Your task to perform on an android device: turn off improve location accuracy Image 0: 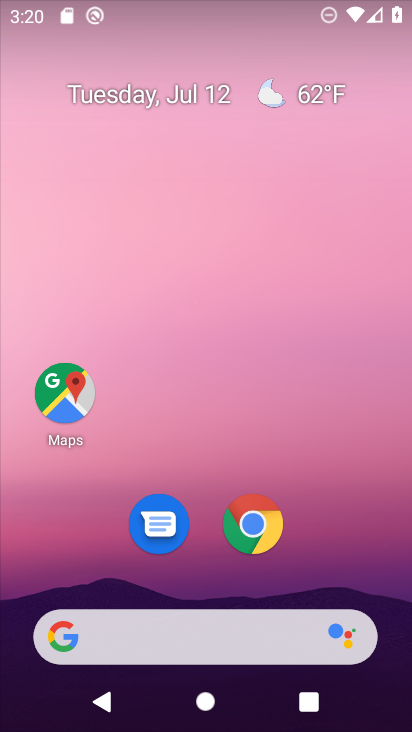
Step 0: drag from (350, 561) to (327, 32)
Your task to perform on an android device: turn off improve location accuracy Image 1: 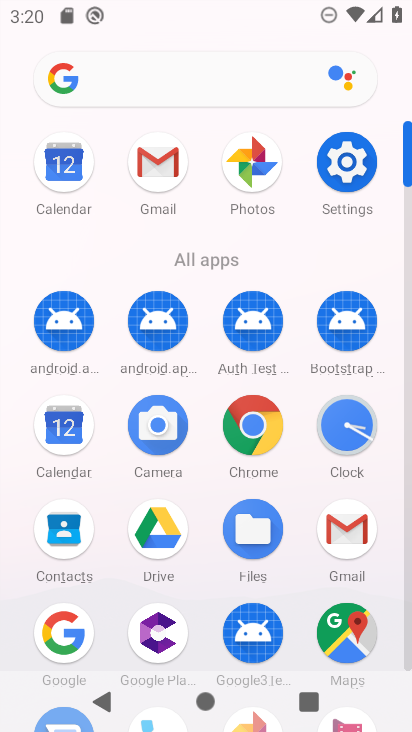
Step 1: click (355, 177)
Your task to perform on an android device: turn off improve location accuracy Image 2: 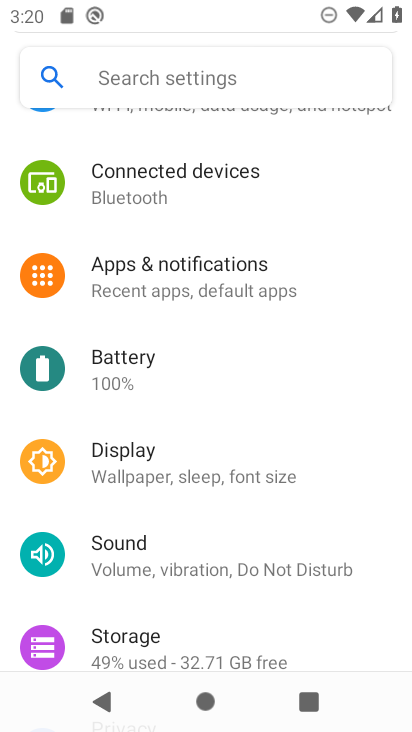
Step 2: drag from (260, 417) to (258, 77)
Your task to perform on an android device: turn off improve location accuracy Image 3: 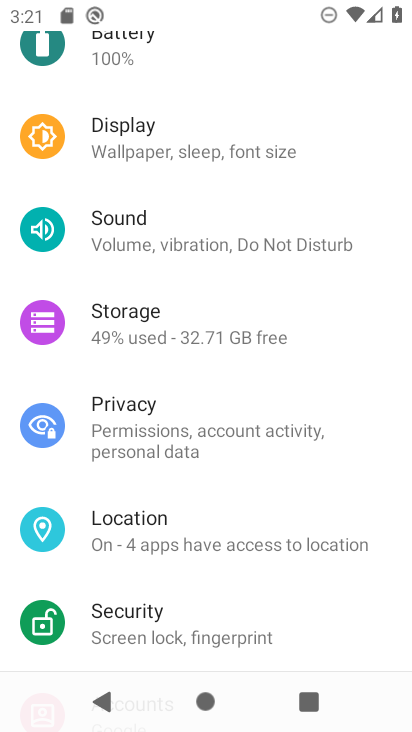
Step 3: click (158, 544)
Your task to perform on an android device: turn off improve location accuracy Image 4: 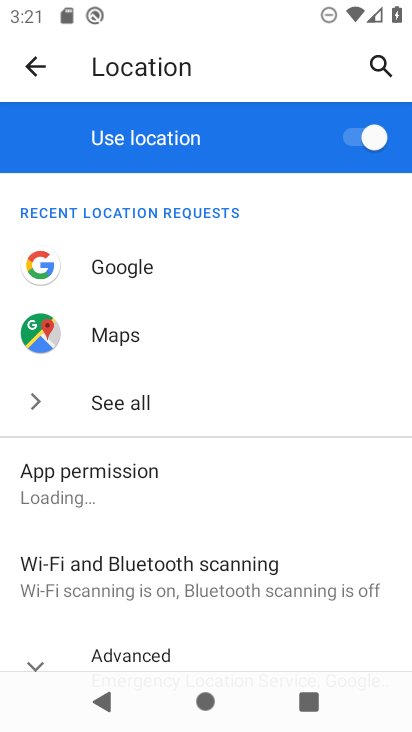
Step 4: drag from (183, 484) to (211, 111)
Your task to perform on an android device: turn off improve location accuracy Image 5: 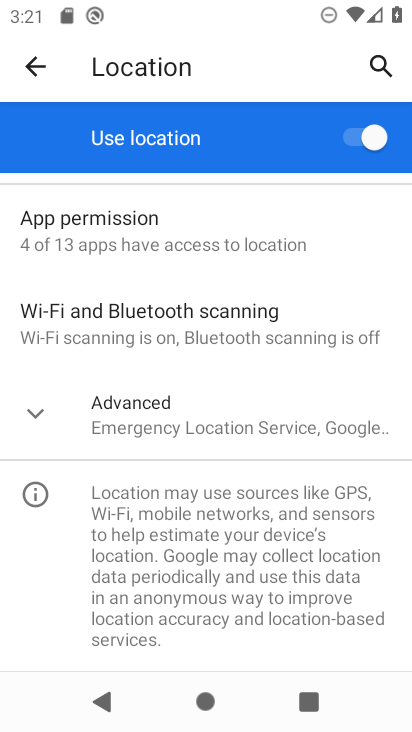
Step 5: click (35, 406)
Your task to perform on an android device: turn off improve location accuracy Image 6: 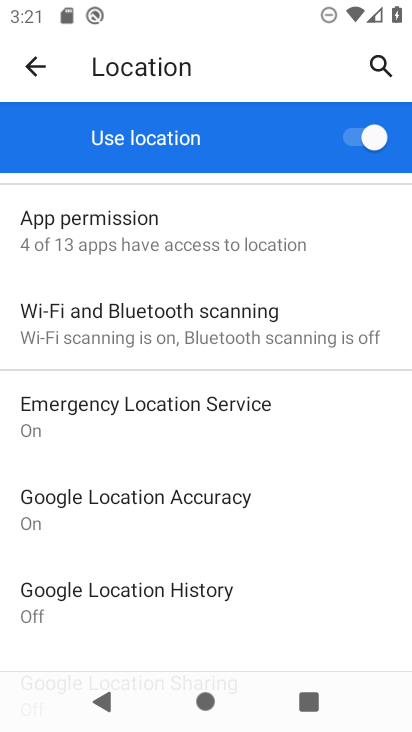
Step 6: click (126, 500)
Your task to perform on an android device: turn off improve location accuracy Image 7: 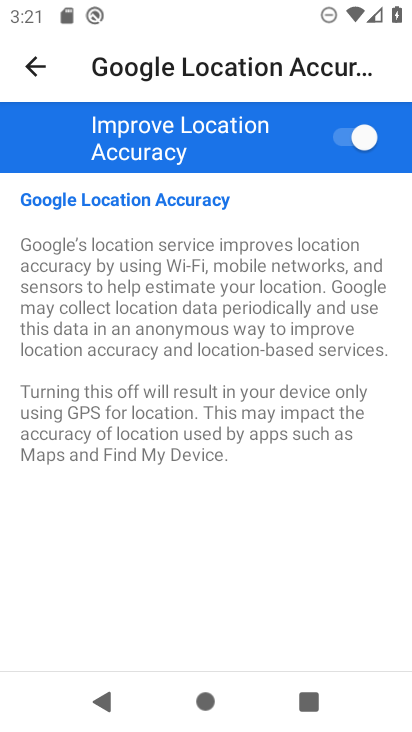
Step 7: click (347, 129)
Your task to perform on an android device: turn off improve location accuracy Image 8: 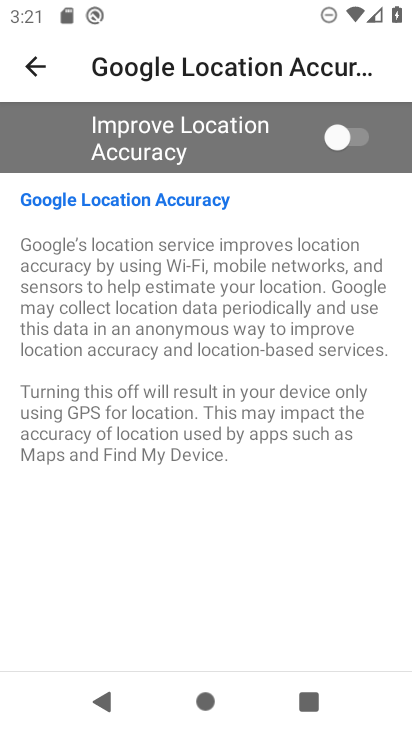
Step 8: task complete